Your task to perform on an android device: add a contact in the contacts app Image 0: 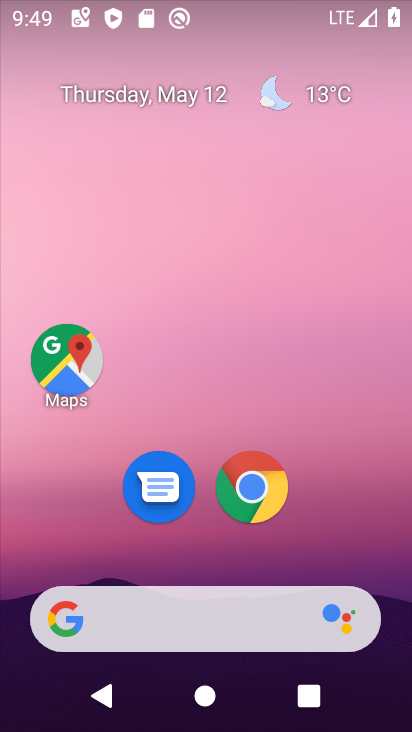
Step 0: drag from (351, 517) to (318, 2)
Your task to perform on an android device: add a contact in the contacts app Image 1: 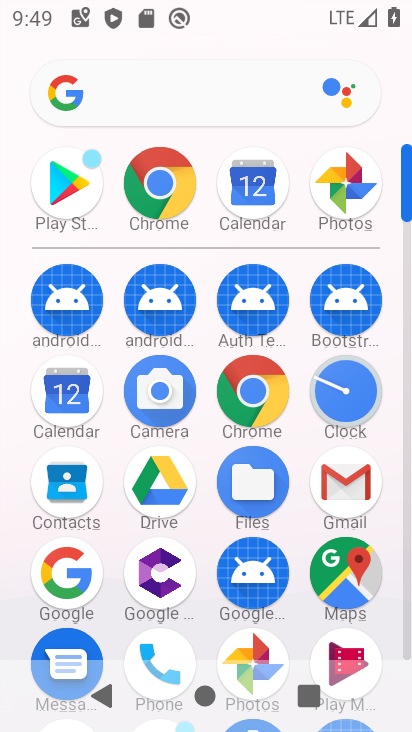
Step 1: click (68, 495)
Your task to perform on an android device: add a contact in the contacts app Image 2: 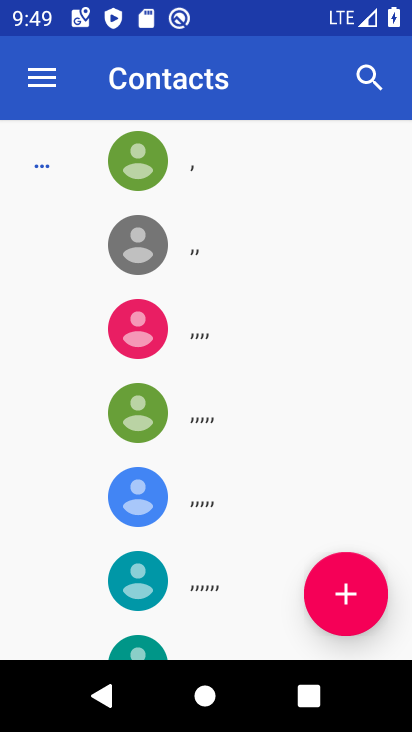
Step 2: click (363, 596)
Your task to perform on an android device: add a contact in the contacts app Image 3: 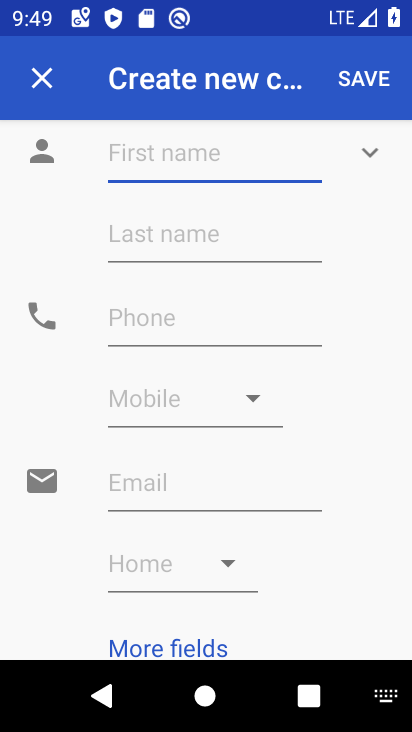
Step 3: click (157, 160)
Your task to perform on an android device: add a contact in the contacts app Image 4: 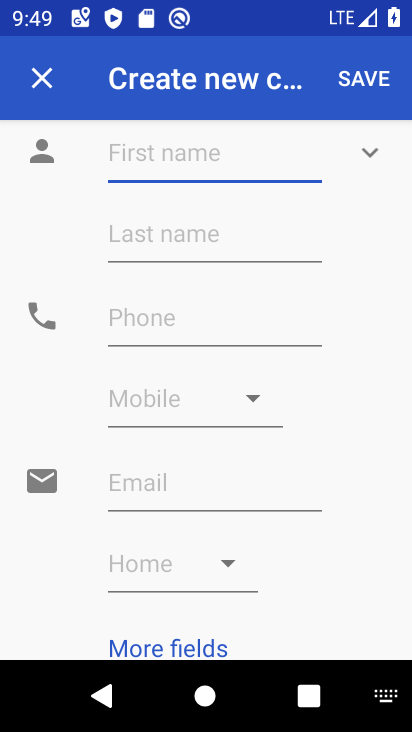
Step 4: click (138, 164)
Your task to perform on an android device: add a contact in the contacts app Image 5: 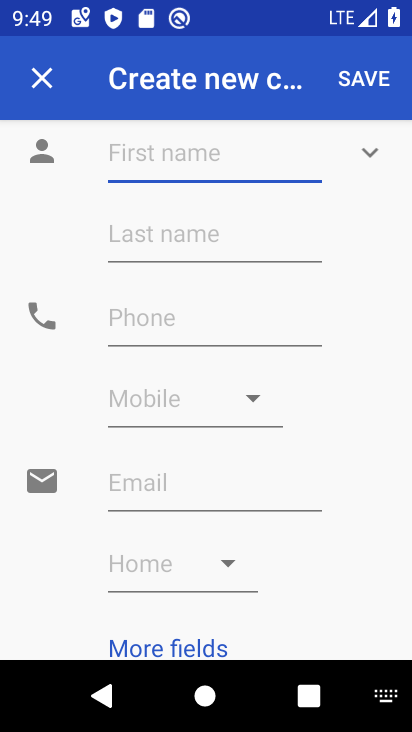
Step 5: type "nummu"
Your task to perform on an android device: add a contact in the contacts app Image 6: 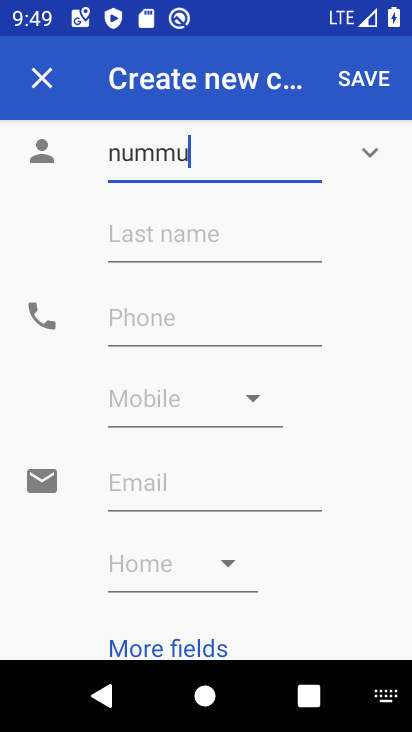
Step 6: click (168, 322)
Your task to perform on an android device: add a contact in the contacts app Image 7: 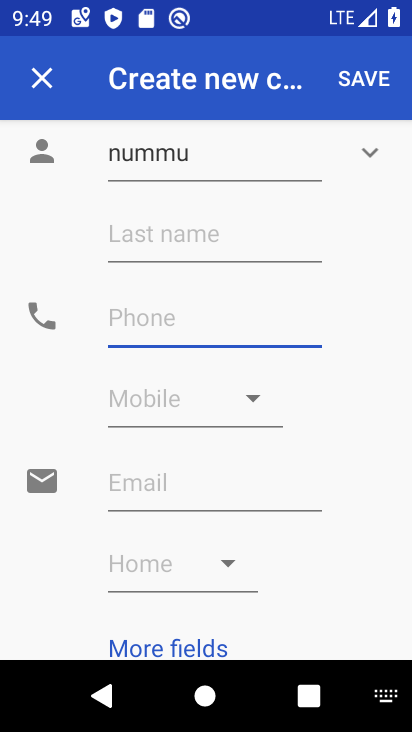
Step 7: type "98765432"
Your task to perform on an android device: add a contact in the contacts app Image 8: 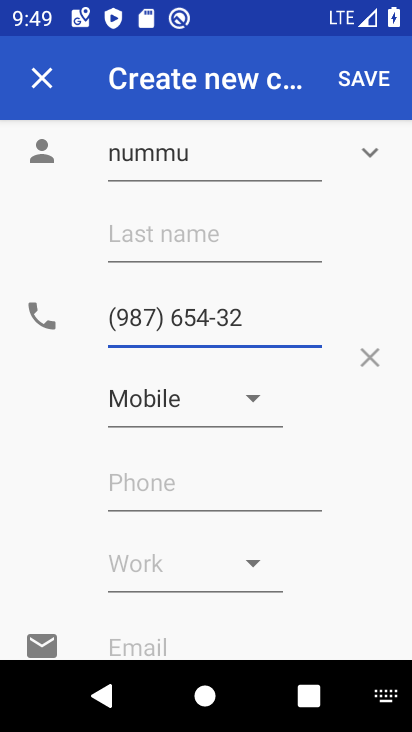
Step 8: click (333, 85)
Your task to perform on an android device: add a contact in the contacts app Image 9: 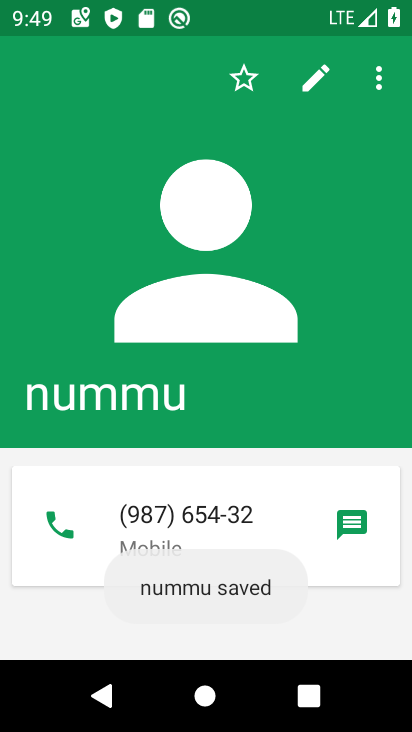
Step 9: task complete